Your task to perform on an android device: change timer sound Image 0: 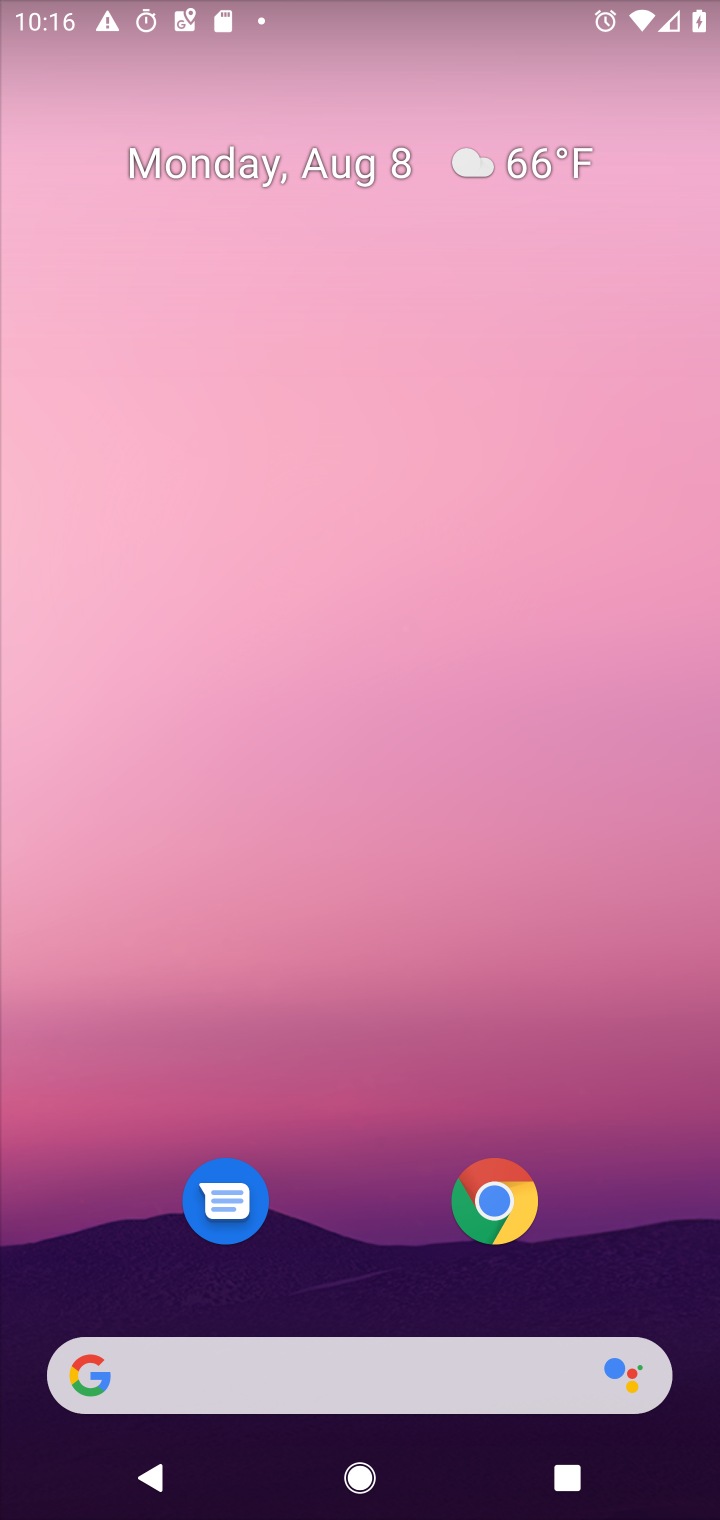
Step 0: drag from (389, 1212) to (493, 358)
Your task to perform on an android device: change timer sound Image 1: 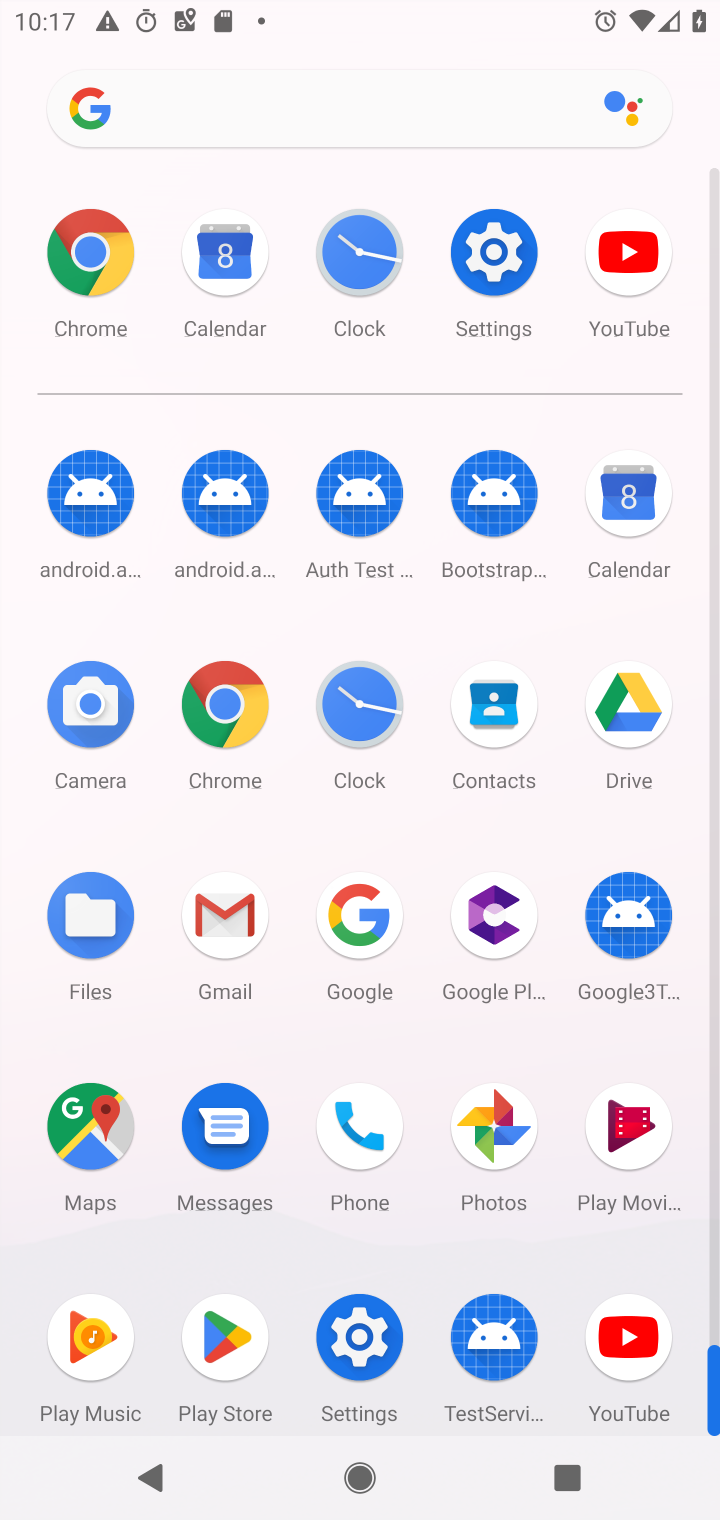
Step 1: click (351, 719)
Your task to perform on an android device: change timer sound Image 2: 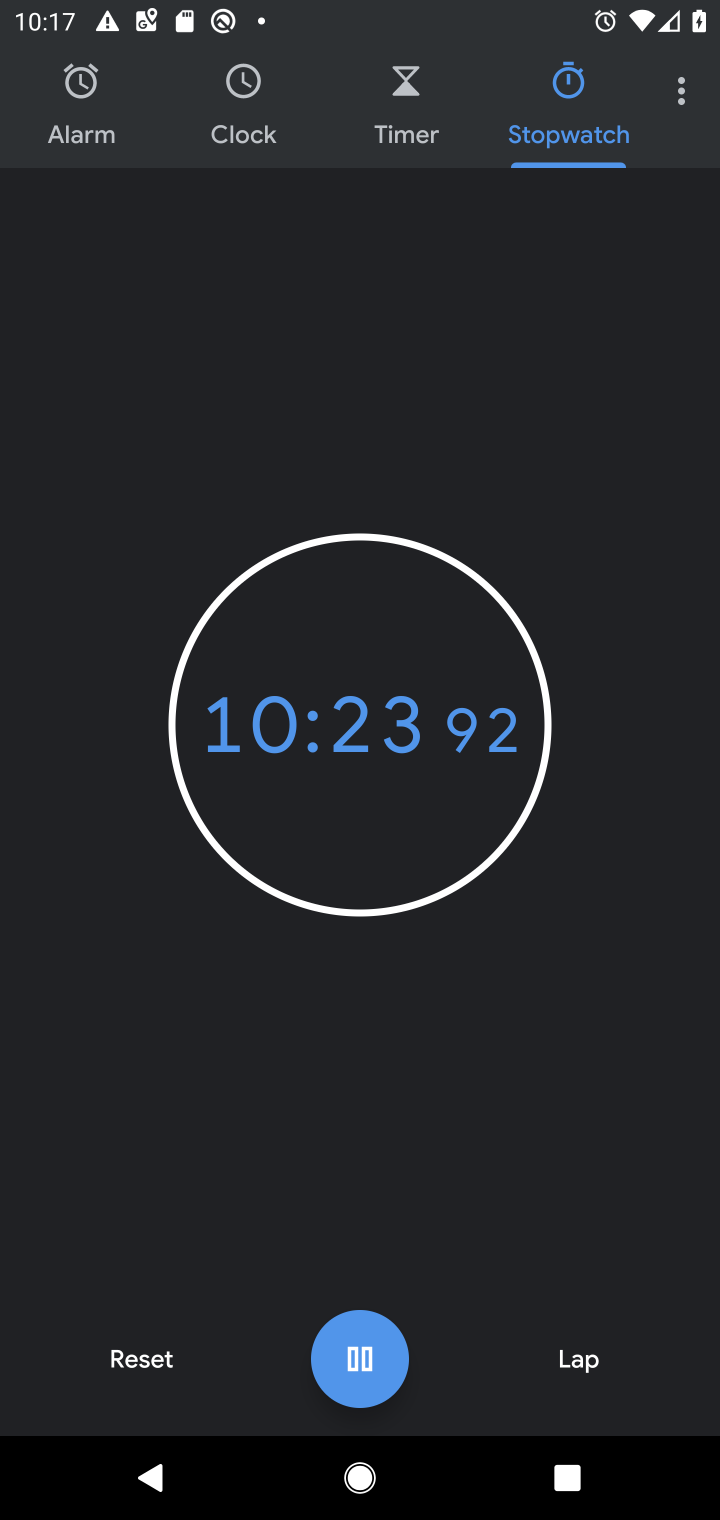
Step 2: click (684, 103)
Your task to perform on an android device: change timer sound Image 3: 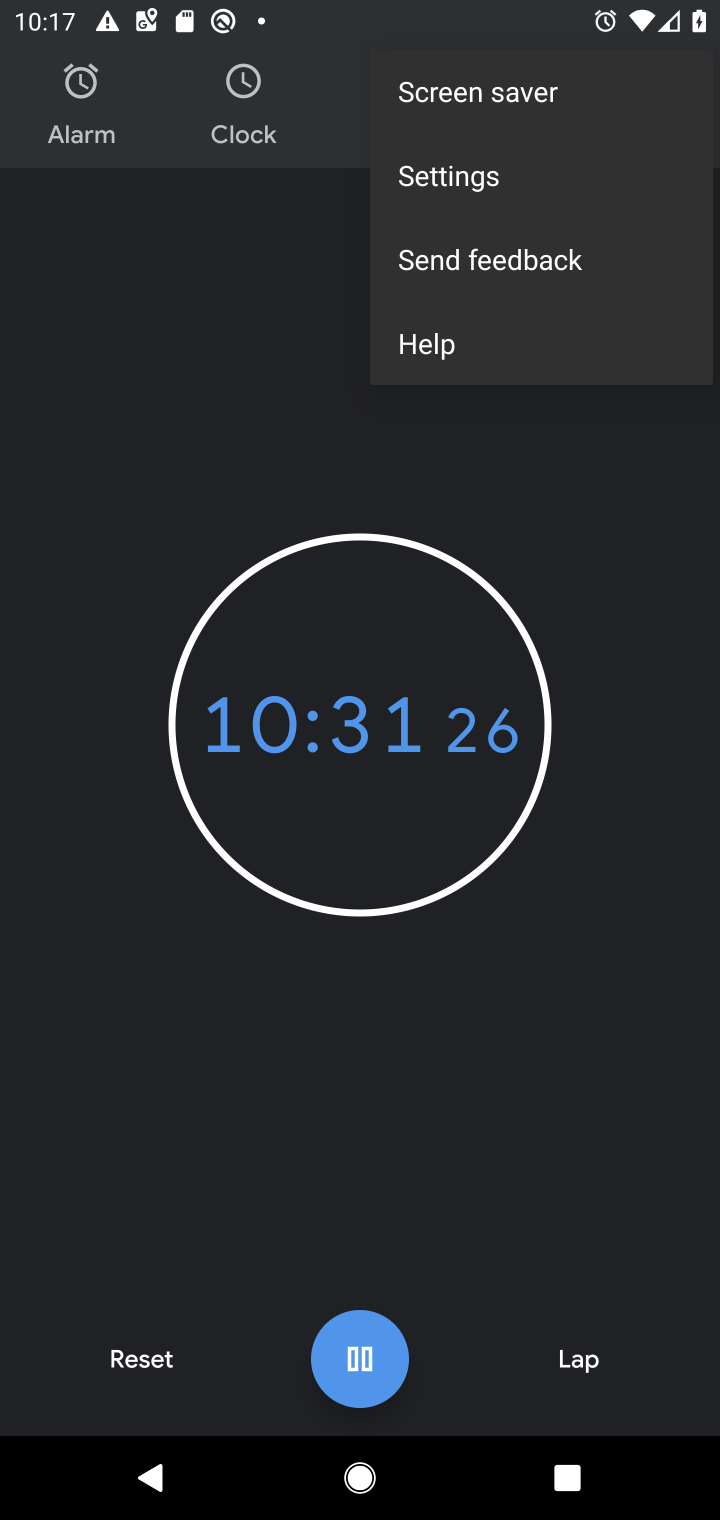
Step 3: click (481, 179)
Your task to perform on an android device: change timer sound Image 4: 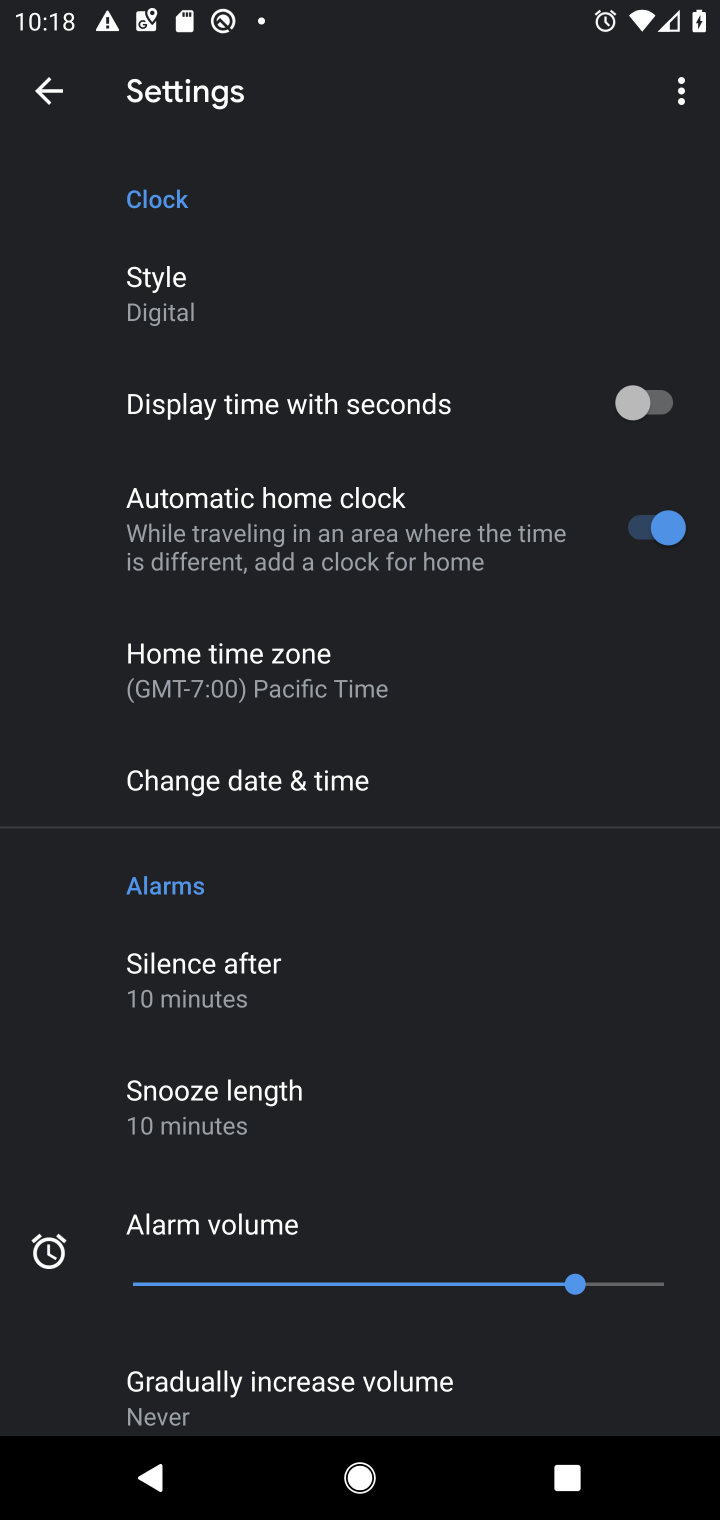
Step 4: drag from (535, 981) to (544, 556)
Your task to perform on an android device: change timer sound Image 5: 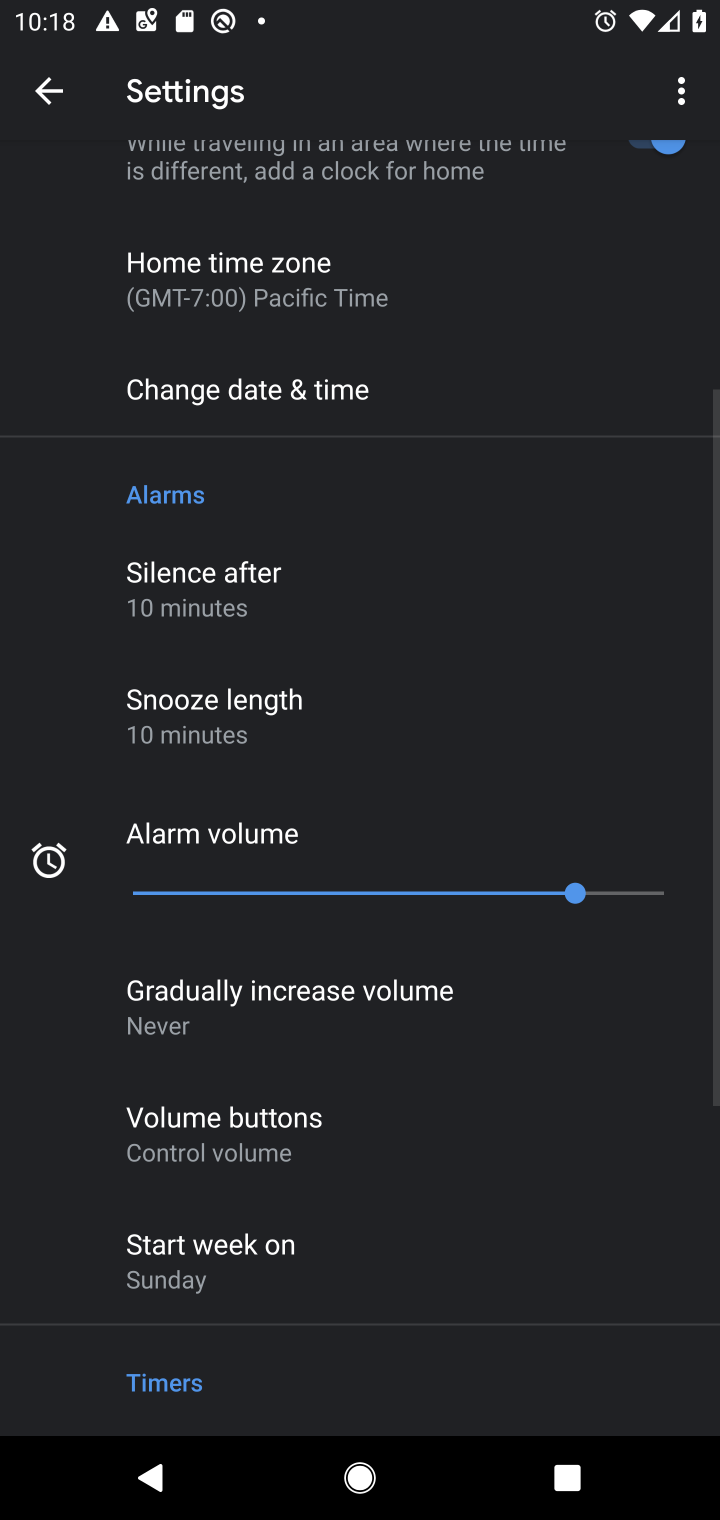
Step 5: drag from (521, 1017) to (509, 631)
Your task to perform on an android device: change timer sound Image 6: 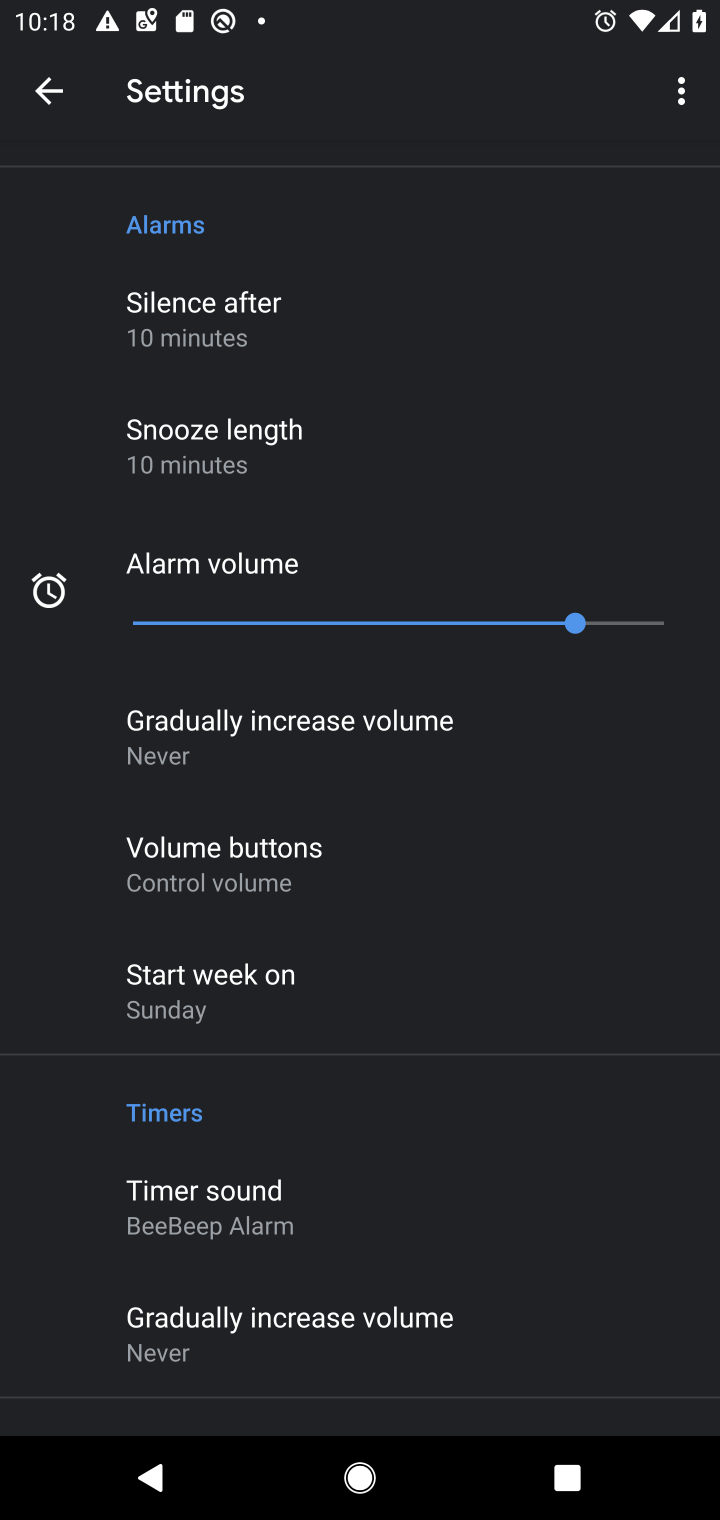
Step 6: drag from (520, 1090) to (504, 790)
Your task to perform on an android device: change timer sound Image 7: 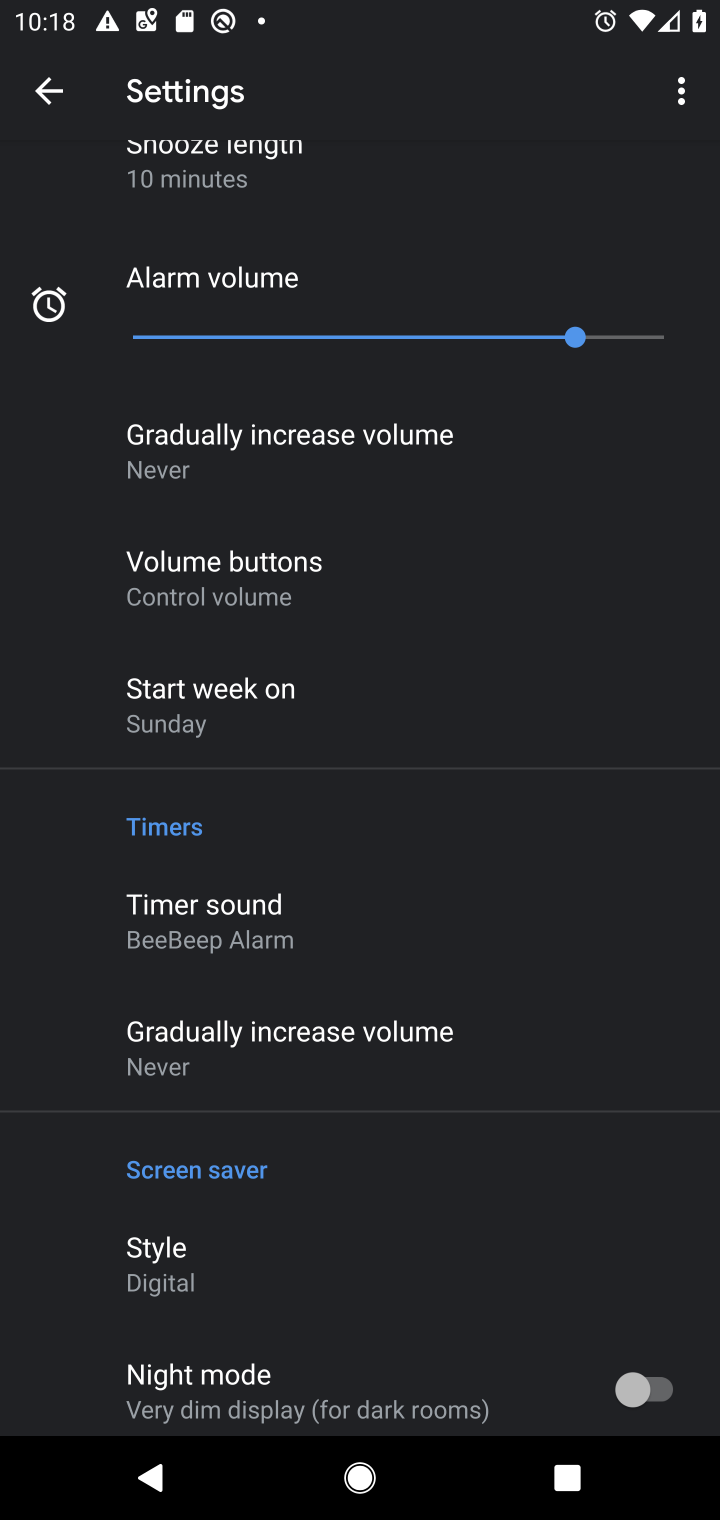
Step 7: click (288, 942)
Your task to perform on an android device: change timer sound Image 8: 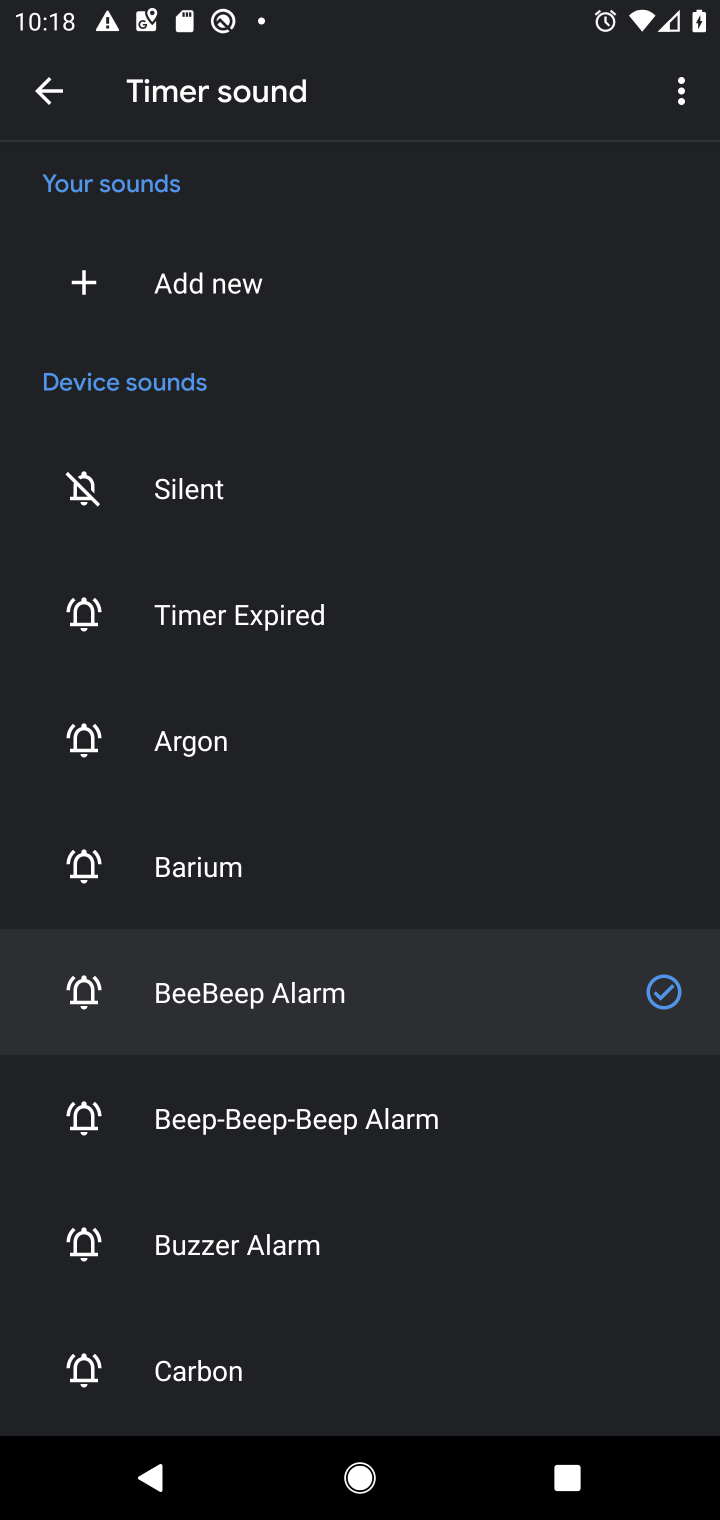
Step 8: click (217, 748)
Your task to perform on an android device: change timer sound Image 9: 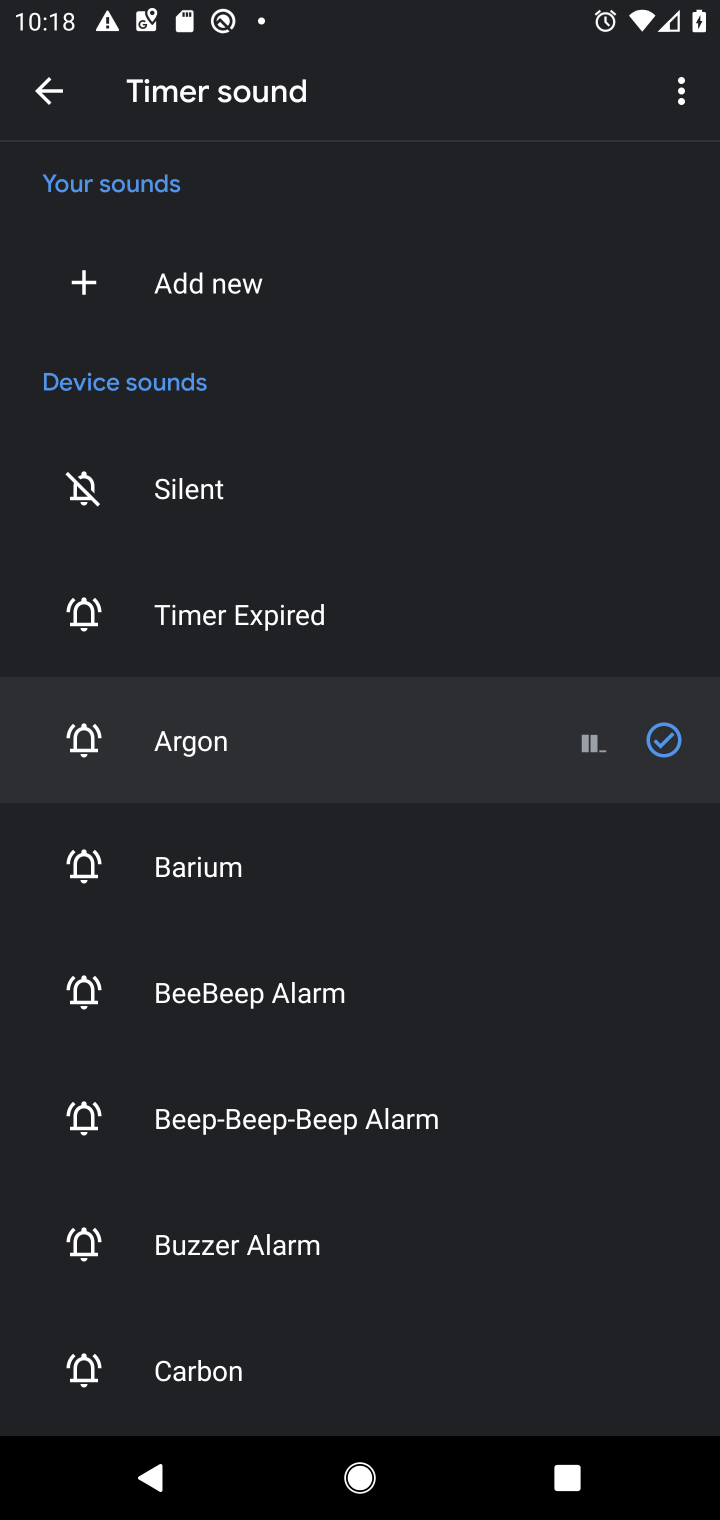
Step 9: task complete